Your task to perform on an android device: turn on the 12-hour format for clock Image 0: 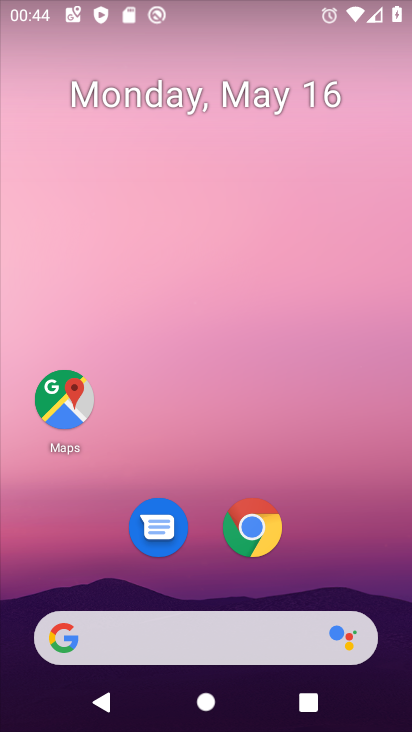
Step 0: drag from (353, 537) to (278, 54)
Your task to perform on an android device: turn on the 12-hour format for clock Image 1: 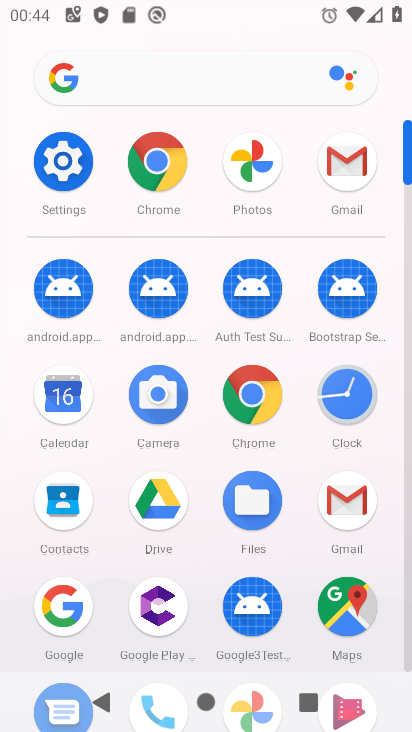
Step 1: click (373, 405)
Your task to perform on an android device: turn on the 12-hour format for clock Image 2: 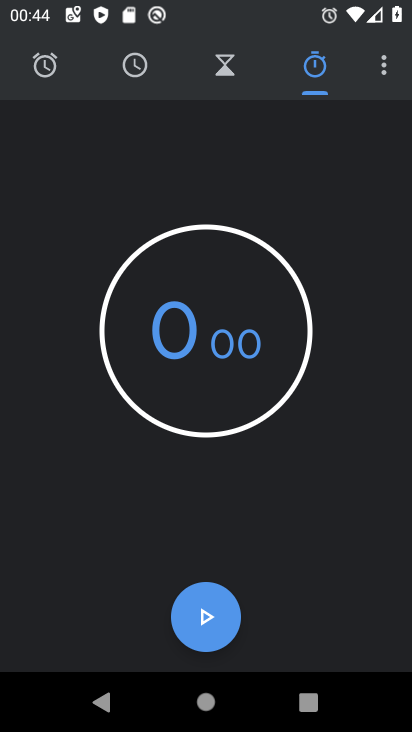
Step 2: click (375, 59)
Your task to perform on an android device: turn on the 12-hour format for clock Image 3: 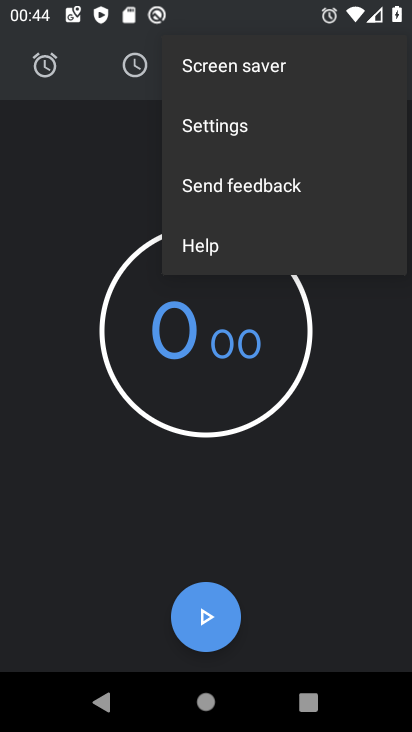
Step 3: click (334, 126)
Your task to perform on an android device: turn on the 12-hour format for clock Image 4: 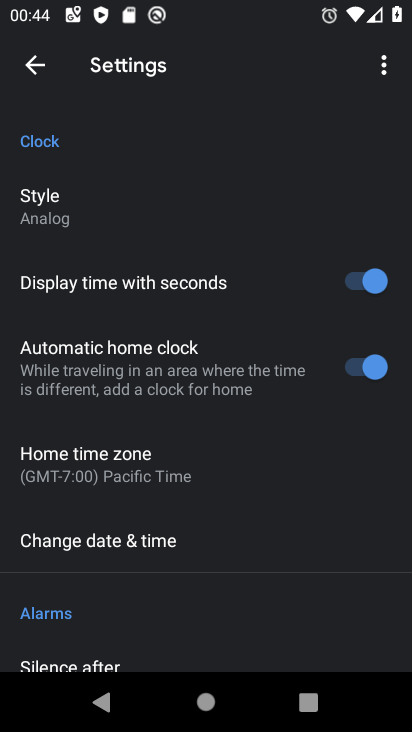
Step 4: click (195, 541)
Your task to perform on an android device: turn on the 12-hour format for clock Image 5: 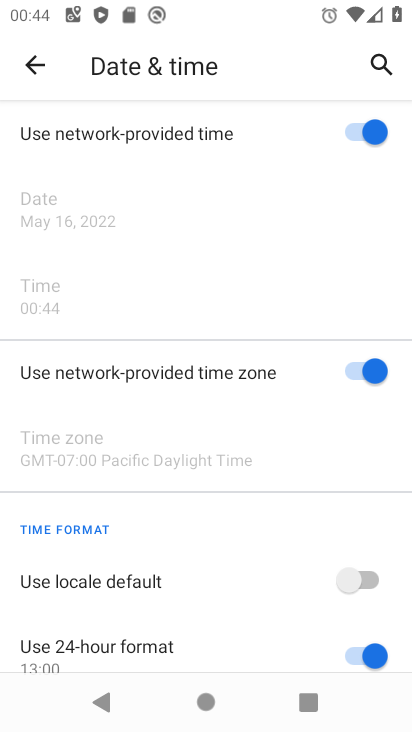
Step 5: click (352, 644)
Your task to perform on an android device: turn on the 12-hour format for clock Image 6: 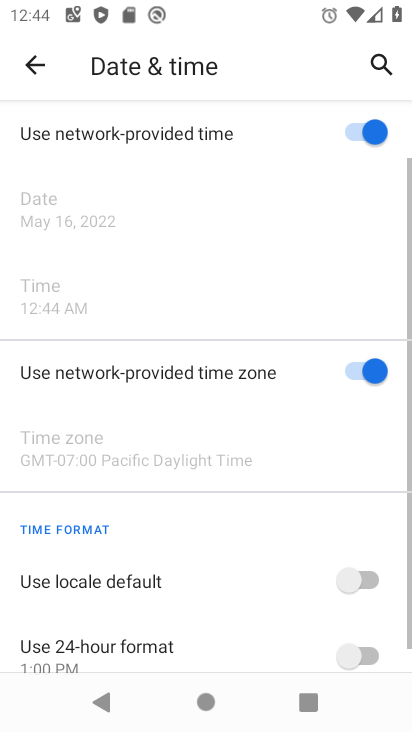
Step 6: task complete